Your task to perform on an android device: Search for pizza restaurants on Maps Image 0: 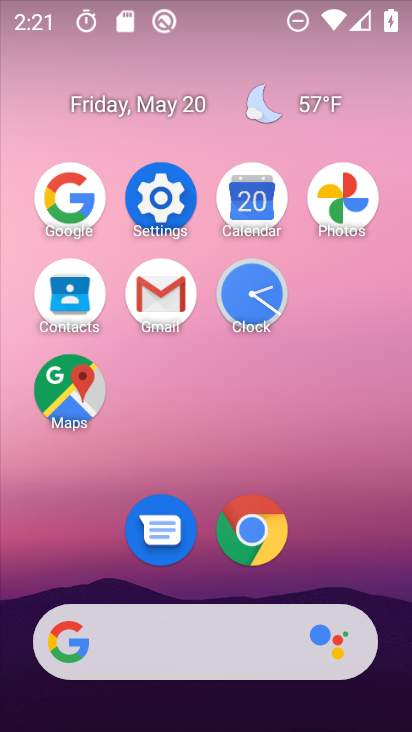
Step 0: click (52, 388)
Your task to perform on an android device: Search for pizza restaurants on Maps Image 1: 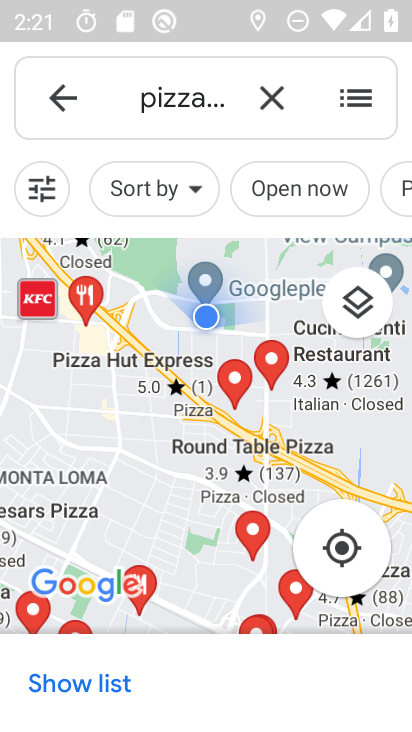
Step 1: task complete